Your task to perform on an android device: Open Google Chrome and open the bookmarks view Image 0: 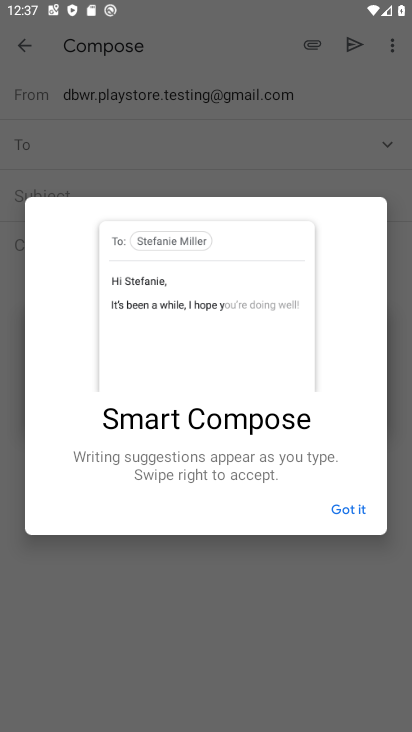
Step 0: press home button
Your task to perform on an android device: Open Google Chrome and open the bookmarks view Image 1: 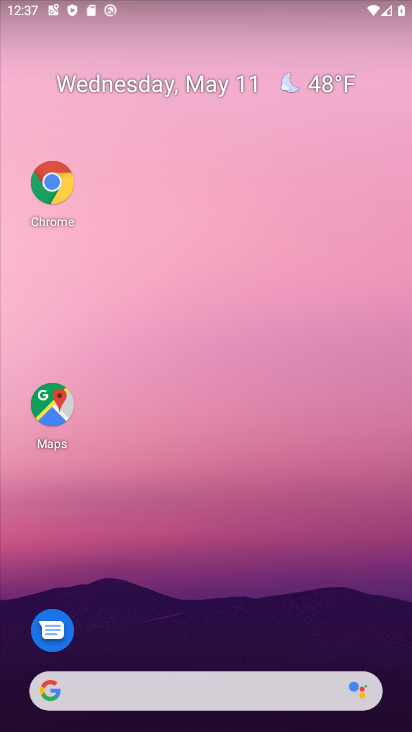
Step 1: drag from (160, 668) to (162, 35)
Your task to perform on an android device: Open Google Chrome and open the bookmarks view Image 2: 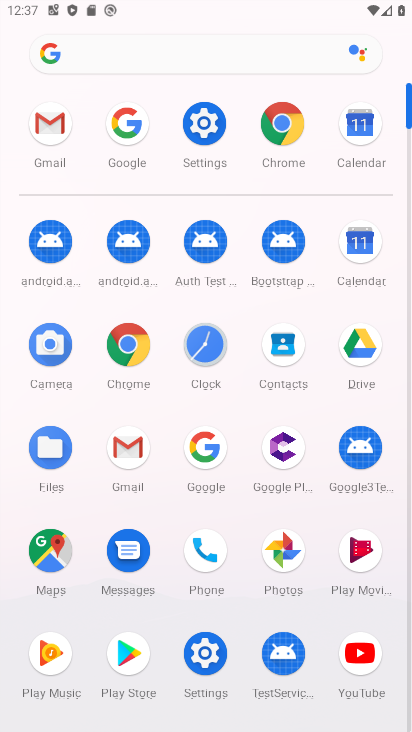
Step 2: click (133, 355)
Your task to perform on an android device: Open Google Chrome and open the bookmarks view Image 3: 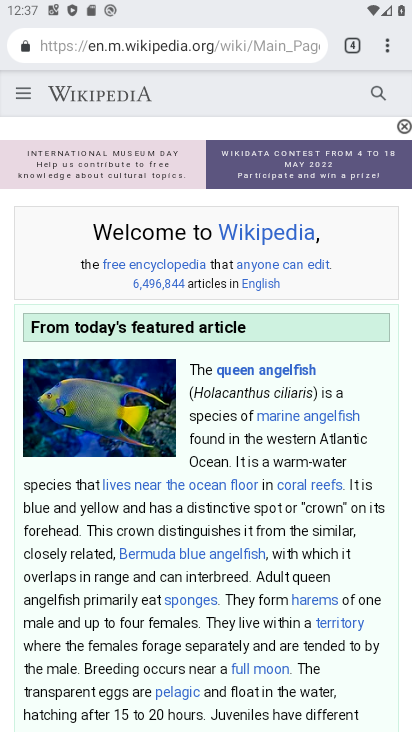
Step 3: click (389, 39)
Your task to perform on an android device: Open Google Chrome and open the bookmarks view Image 4: 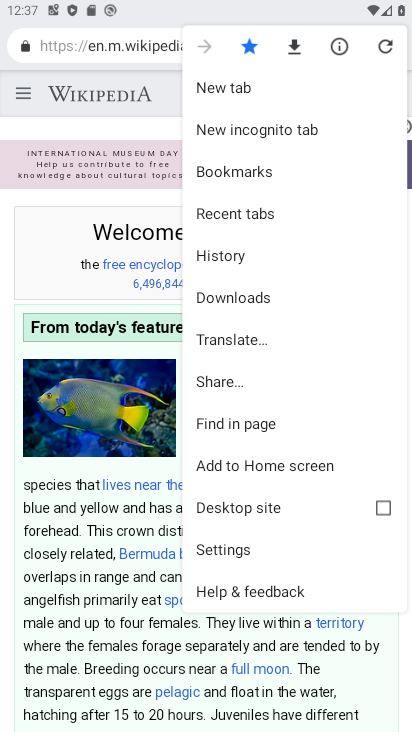
Step 4: click (241, 167)
Your task to perform on an android device: Open Google Chrome and open the bookmarks view Image 5: 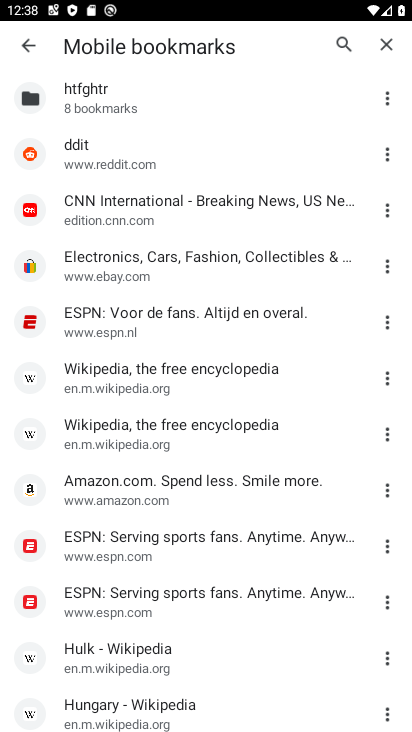
Step 5: task complete